Your task to perform on an android device: Open the Play Movies app and select the watchlist tab. Image 0: 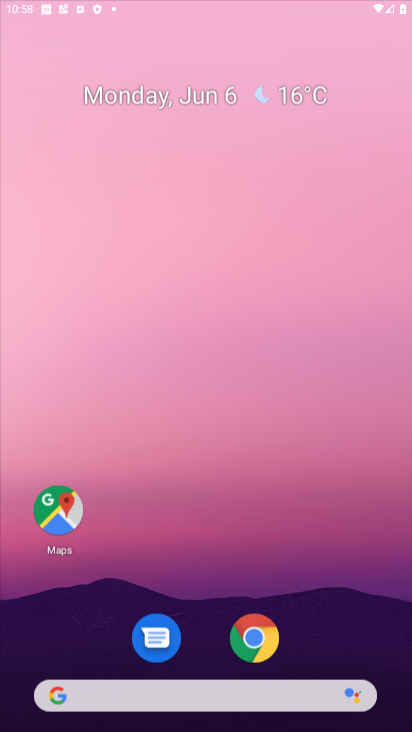
Step 0: click (281, 137)
Your task to perform on an android device: Open the Play Movies app and select the watchlist tab. Image 1: 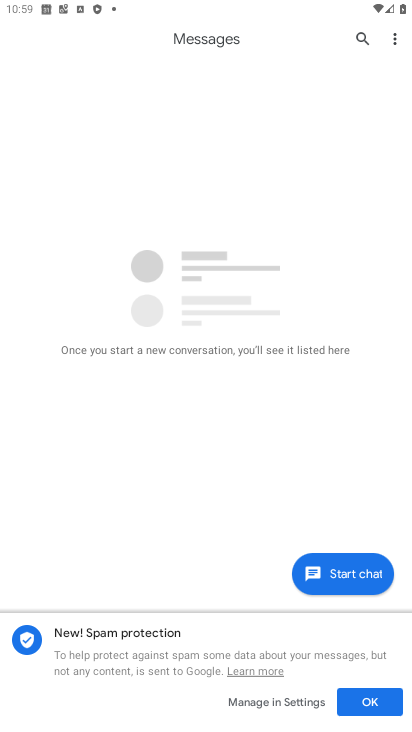
Step 1: press home button
Your task to perform on an android device: Open the Play Movies app and select the watchlist tab. Image 2: 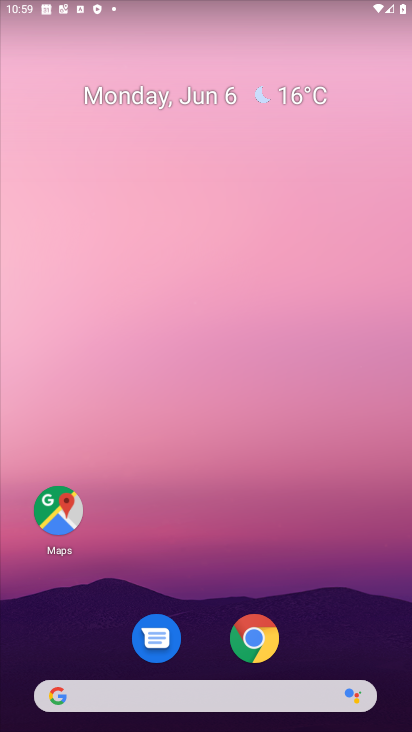
Step 2: drag from (150, 684) to (233, 148)
Your task to perform on an android device: Open the Play Movies app and select the watchlist tab. Image 3: 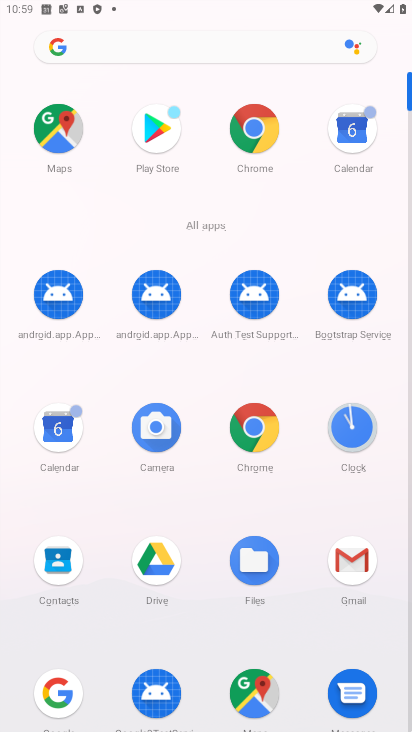
Step 3: drag from (309, 593) to (363, 384)
Your task to perform on an android device: Open the Play Movies app and select the watchlist tab. Image 4: 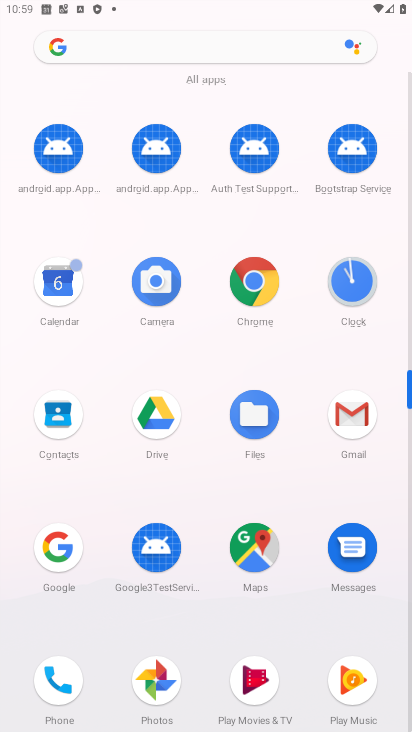
Step 4: click (251, 675)
Your task to perform on an android device: Open the Play Movies app and select the watchlist tab. Image 5: 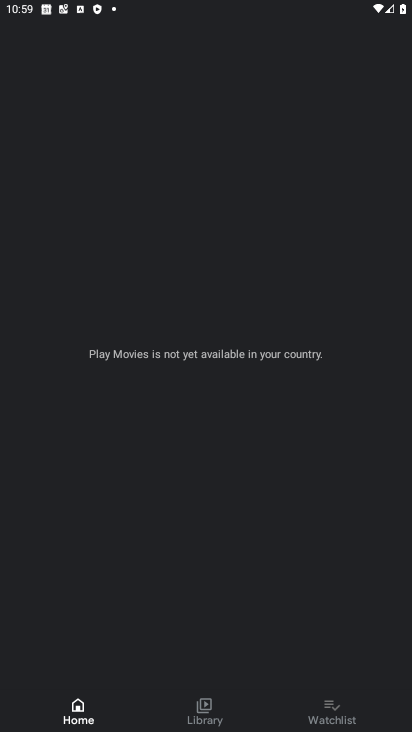
Step 5: click (319, 703)
Your task to perform on an android device: Open the Play Movies app and select the watchlist tab. Image 6: 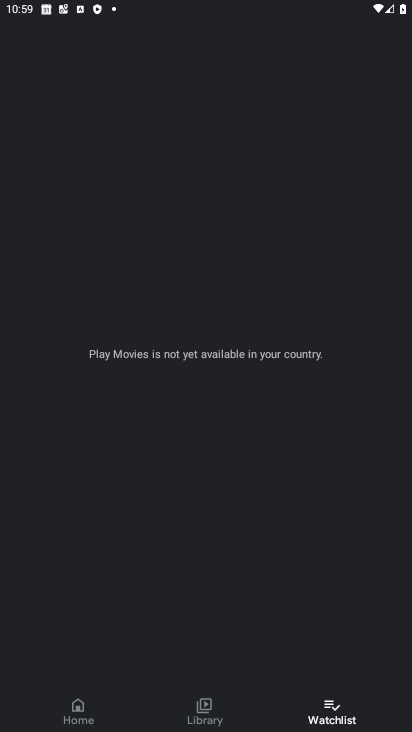
Step 6: task complete